Your task to perform on an android device: When is my next appointment? Image 0: 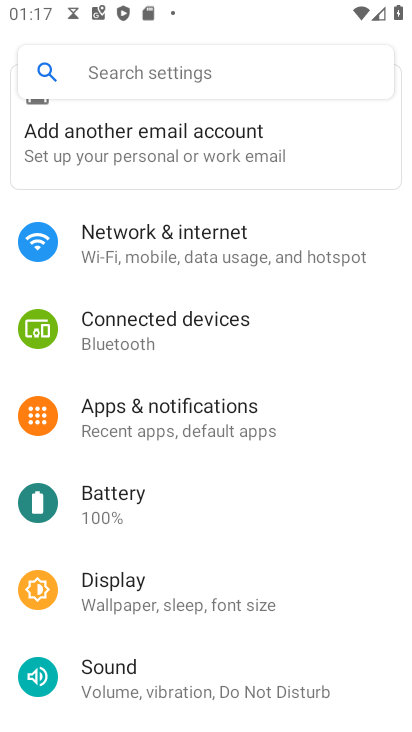
Step 0: press home button
Your task to perform on an android device: When is my next appointment? Image 1: 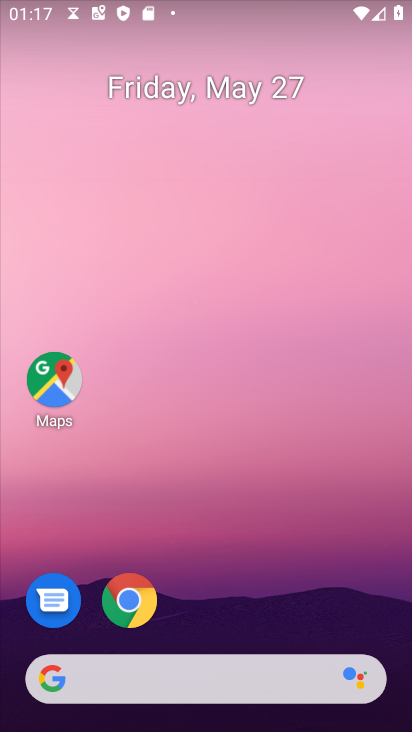
Step 1: drag from (197, 545) to (188, 129)
Your task to perform on an android device: When is my next appointment? Image 2: 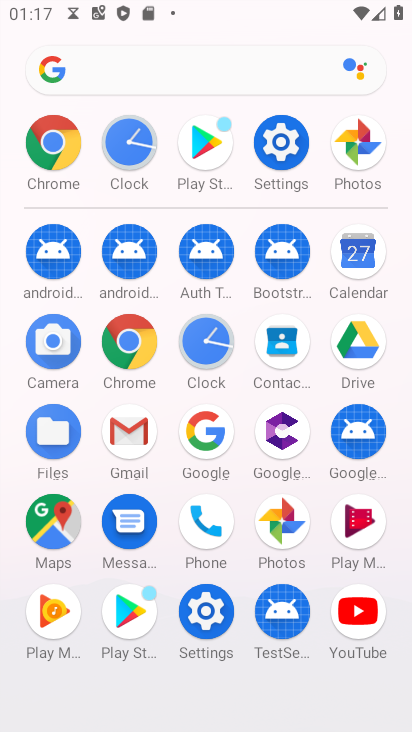
Step 2: click (351, 262)
Your task to perform on an android device: When is my next appointment? Image 3: 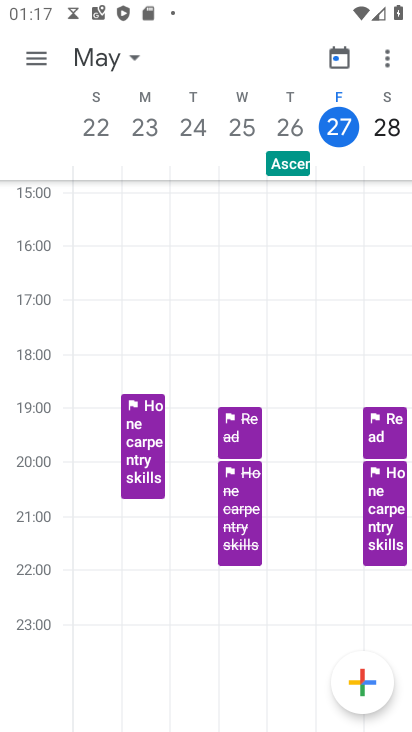
Step 3: click (40, 46)
Your task to perform on an android device: When is my next appointment? Image 4: 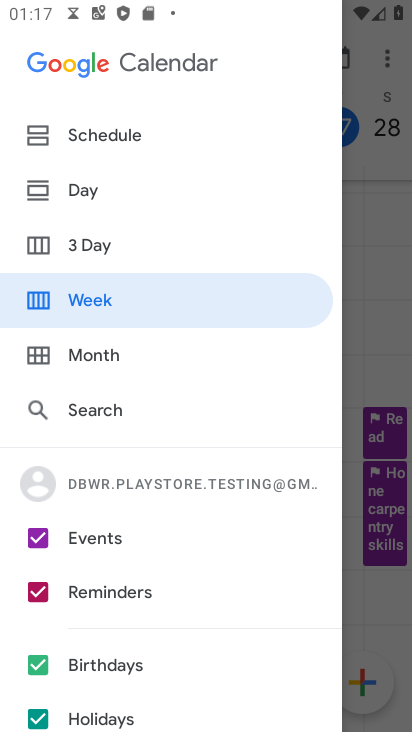
Step 4: click (121, 143)
Your task to perform on an android device: When is my next appointment? Image 5: 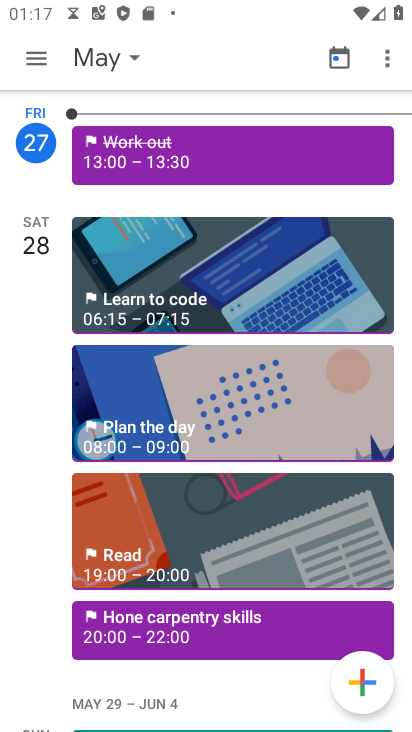
Step 5: task complete